Your task to perform on an android device: toggle translation in the chrome app Image 0: 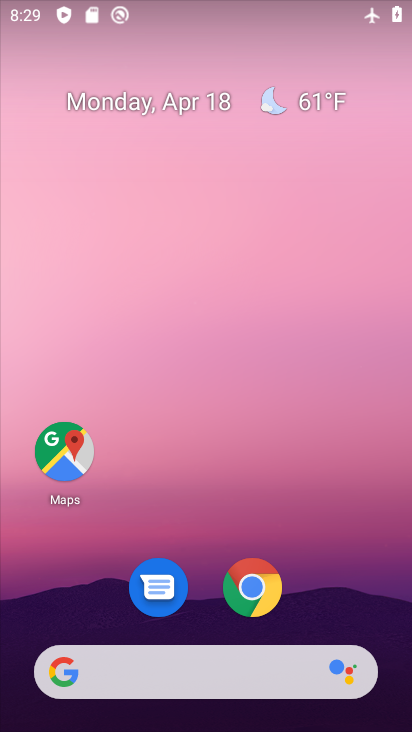
Step 0: click (252, 582)
Your task to perform on an android device: toggle translation in the chrome app Image 1: 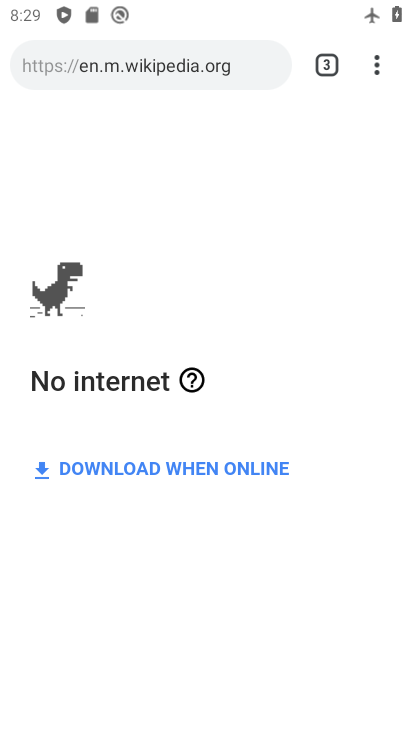
Step 1: click (372, 62)
Your task to perform on an android device: toggle translation in the chrome app Image 2: 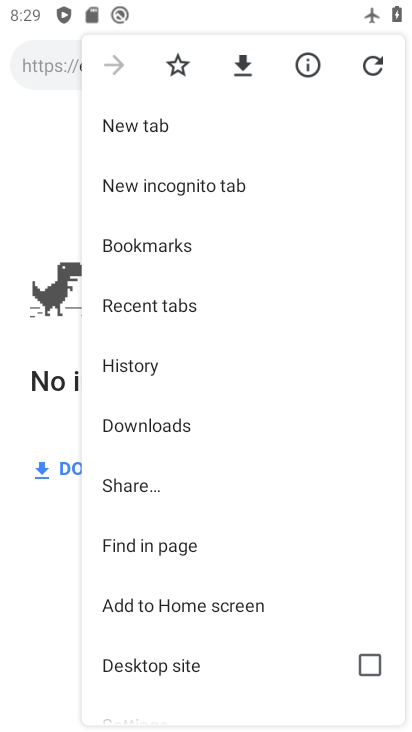
Step 2: drag from (232, 646) to (264, 197)
Your task to perform on an android device: toggle translation in the chrome app Image 3: 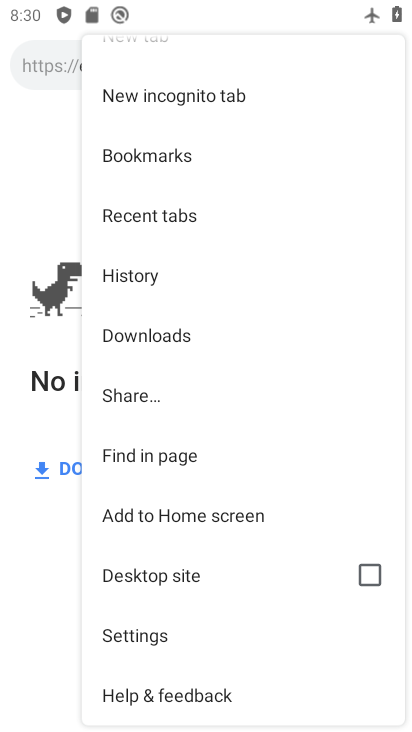
Step 3: click (138, 632)
Your task to perform on an android device: toggle translation in the chrome app Image 4: 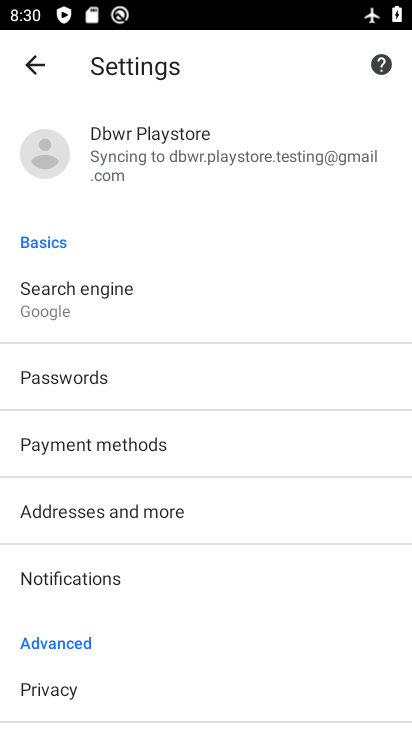
Step 4: drag from (194, 619) to (222, 180)
Your task to perform on an android device: toggle translation in the chrome app Image 5: 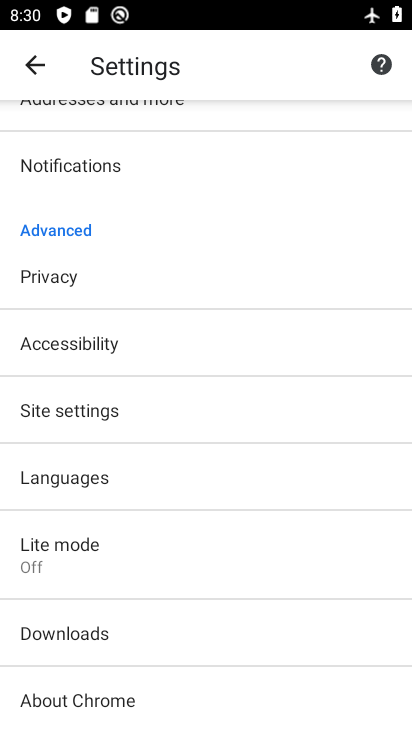
Step 5: click (59, 477)
Your task to perform on an android device: toggle translation in the chrome app Image 6: 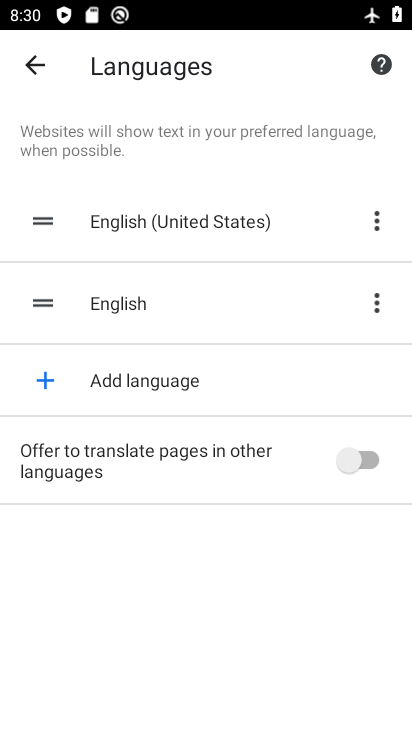
Step 6: click (371, 459)
Your task to perform on an android device: toggle translation in the chrome app Image 7: 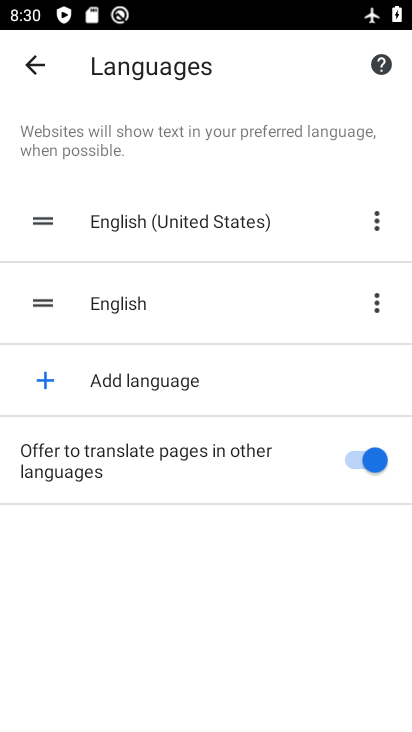
Step 7: task complete